Your task to perform on an android device: Search for Italian restaurants on Maps Image 0: 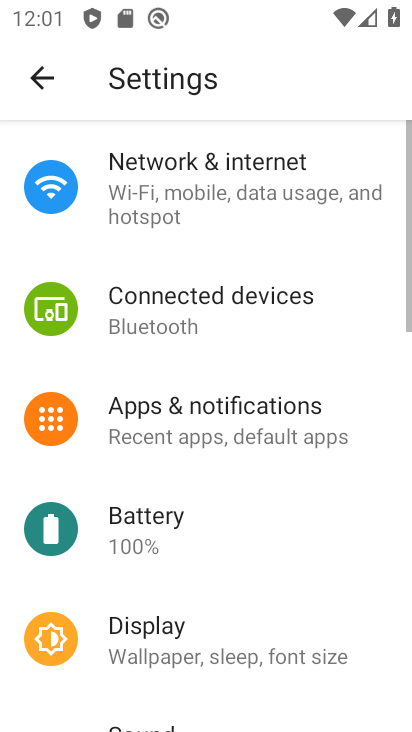
Step 0: press home button
Your task to perform on an android device: Search for Italian restaurants on Maps Image 1: 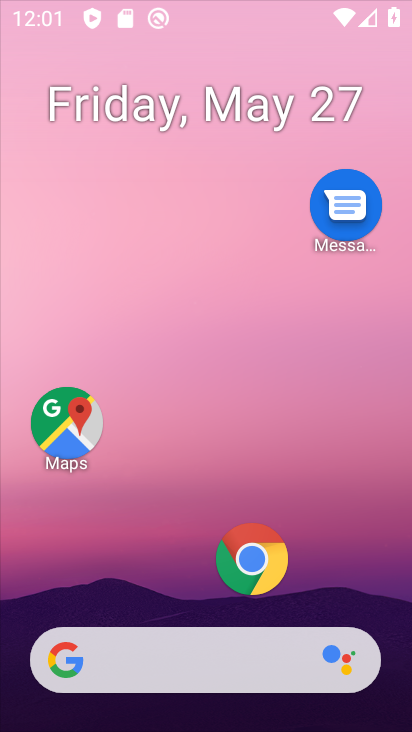
Step 1: drag from (186, 644) to (179, 118)
Your task to perform on an android device: Search for Italian restaurants on Maps Image 2: 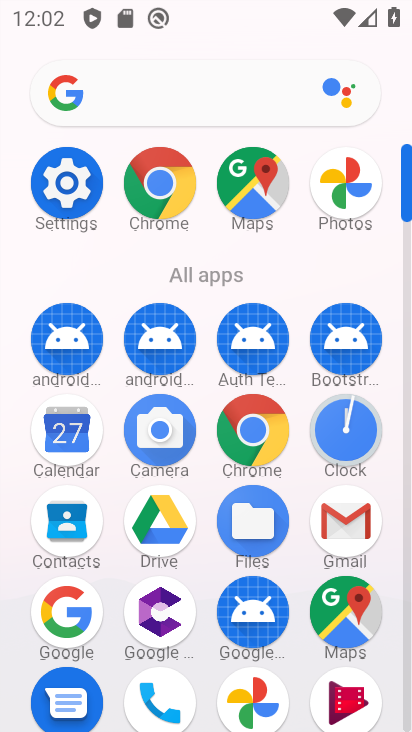
Step 2: click (350, 605)
Your task to perform on an android device: Search for Italian restaurants on Maps Image 3: 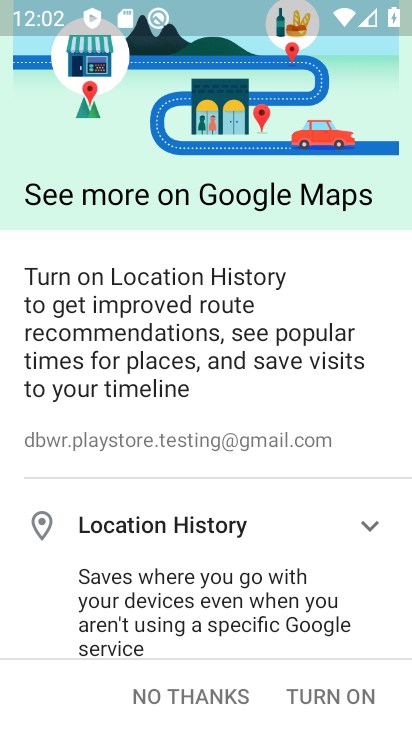
Step 3: click (351, 707)
Your task to perform on an android device: Search for Italian restaurants on Maps Image 4: 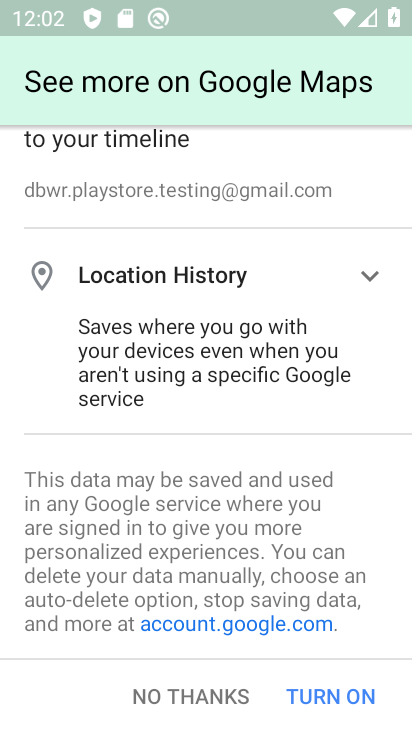
Step 4: click (341, 690)
Your task to perform on an android device: Search for Italian restaurants on Maps Image 5: 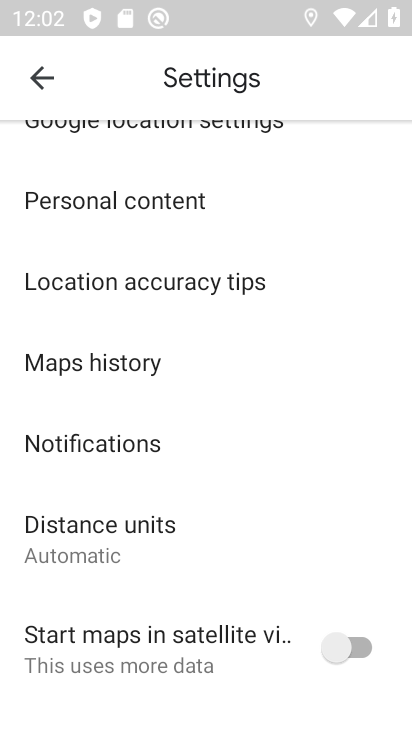
Step 5: task complete